Your task to perform on an android device: turn off picture-in-picture Image 0: 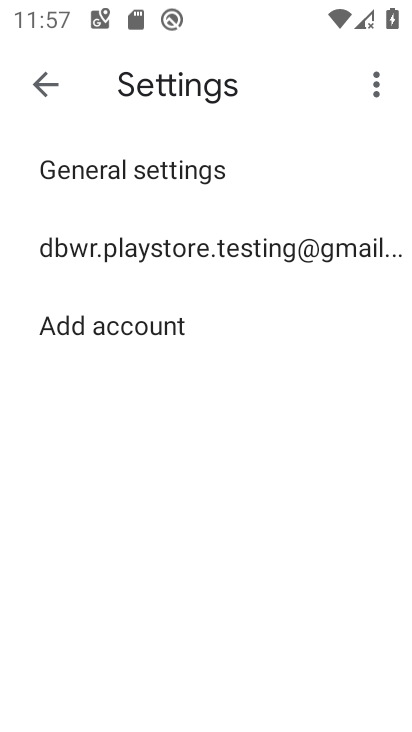
Step 0: press home button
Your task to perform on an android device: turn off picture-in-picture Image 1: 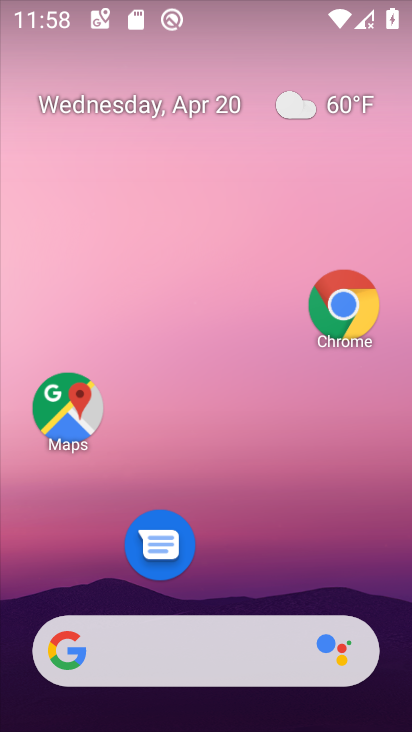
Step 1: drag from (198, 509) to (193, 58)
Your task to perform on an android device: turn off picture-in-picture Image 2: 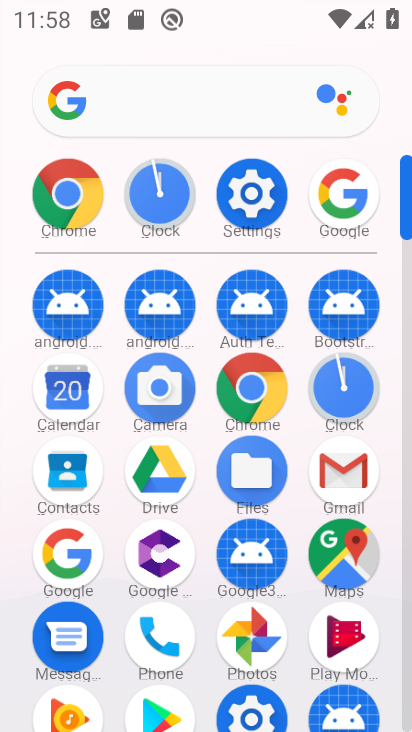
Step 2: click (242, 205)
Your task to perform on an android device: turn off picture-in-picture Image 3: 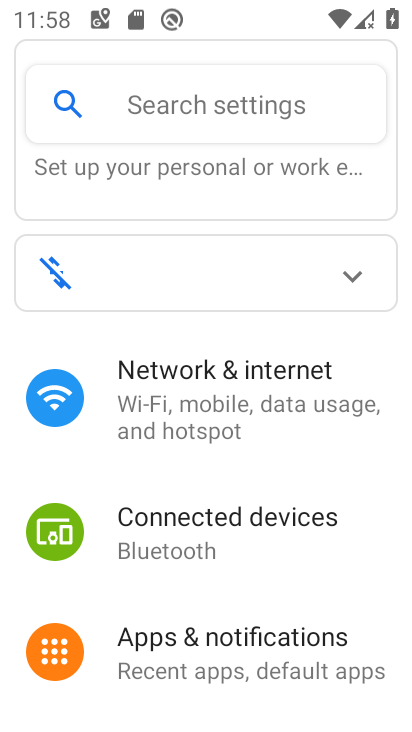
Step 3: click (267, 651)
Your task to perform on an android device: turn off picture-in-picture Image 4: 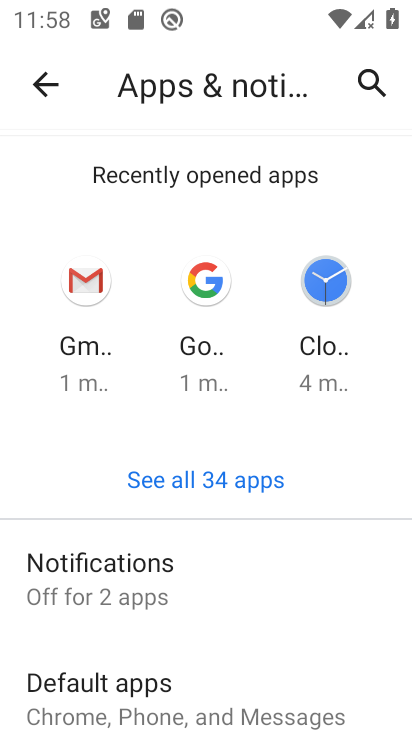
Step 4: drag from (198, 635) to (209, 97)
Your task to perform on an android device: turn off picture-in-picture Image 5: 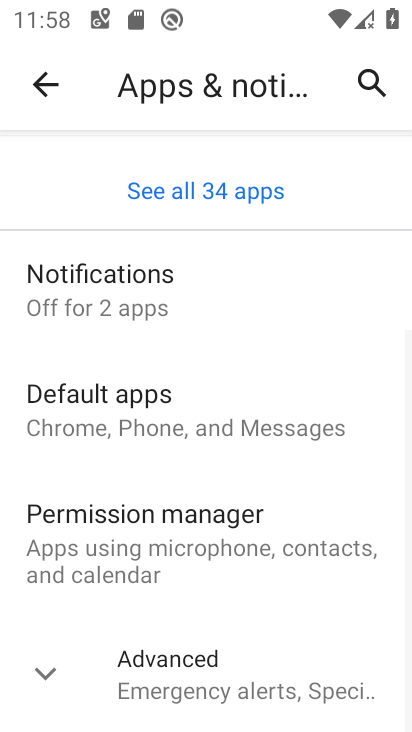
Step 5: click (188, 659)
Your task to perform on an android device: turn off picture-in-picture Image 6: 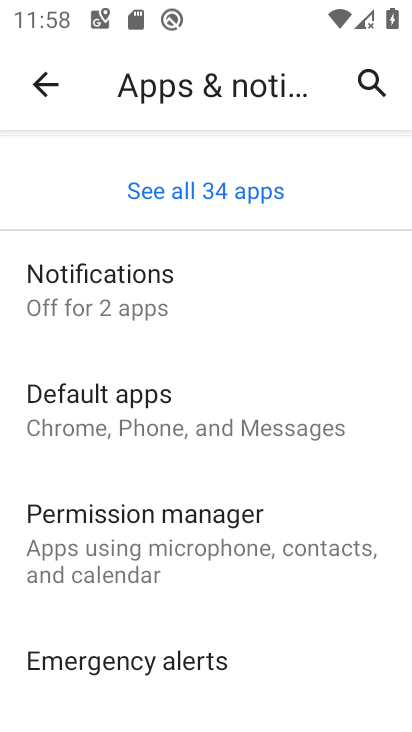
Step 6: drag from (159, 553) to (243, 53)
Your task to perform on an android device: turn off picture-in-picture Image 7: 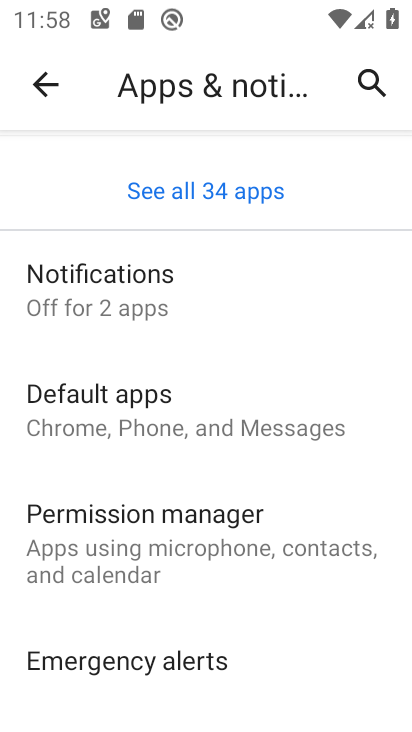
Step 7: drag from (198, 622) to (207, 157)
Your task to perform on an android device: turn off picture-in-picture Image 8: 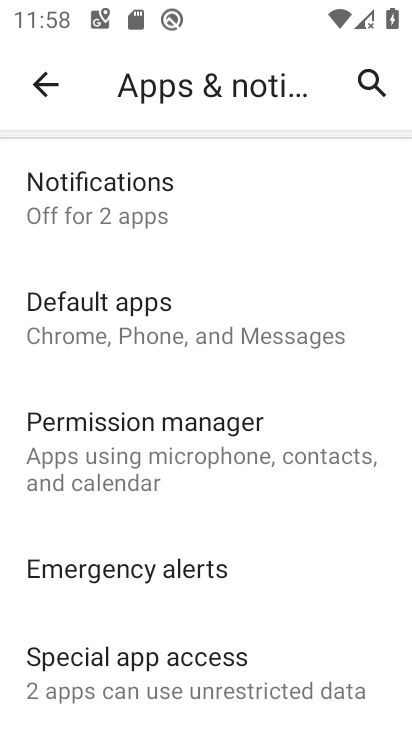
Step 8: click (240, 649)
Your task to perform on an android device: turn off picture-in-picture Image 9: 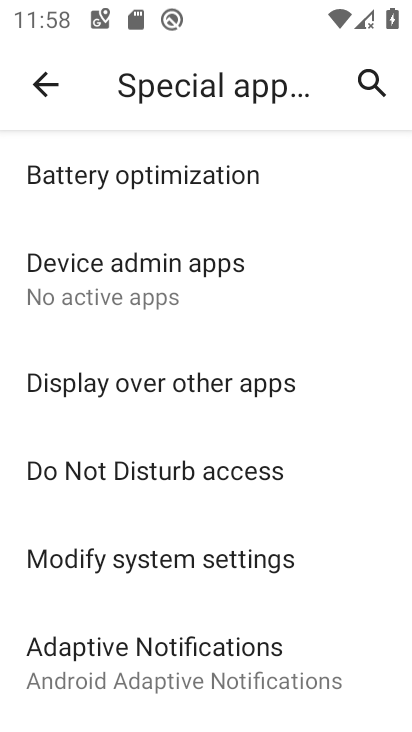
Step 9: drag from (214, 538) to (262, 170)
Your task to perform on an android device: turn off picture-in-picture Image 10: 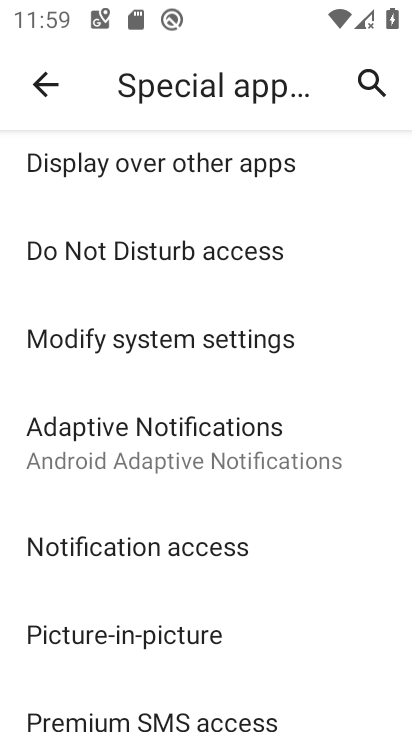
Step 10: click (214, 552)
Your task to perform on an android device: turn off picture-in-picture Image 11: 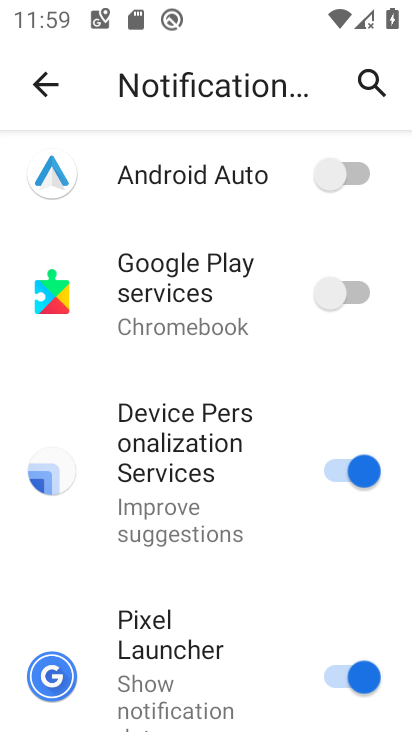
Step 11: click (47, 99)
Your task to perform on an android device: turn off picture-in-picture Image 12: 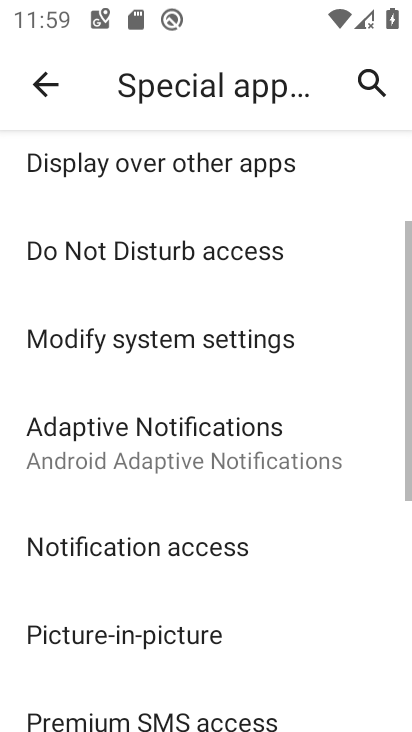
Step 12: click (196, 623)
Your task to perform on an android device: turn off picture-in-picture Image 13: 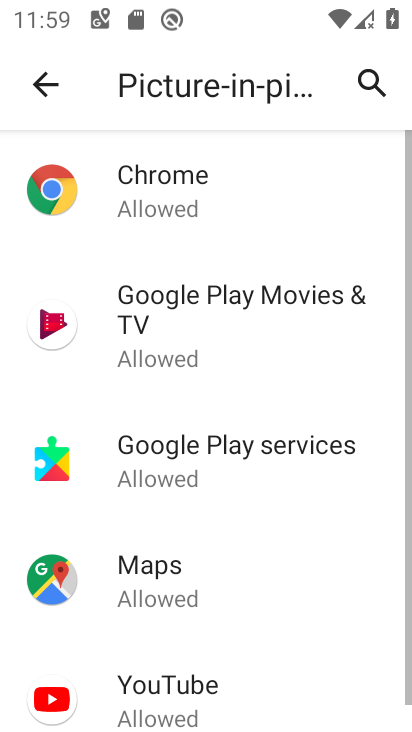
Step 13: click (281, 201)
Your task to perform on an android device: turn off picture-in-picture Image 14: 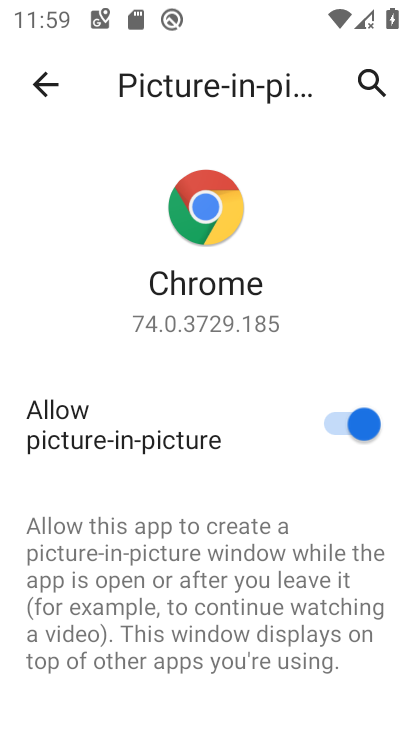
Step 14: click (327, 424)
Your task to perform on an android device: turn off picture-in-picture Image 15: 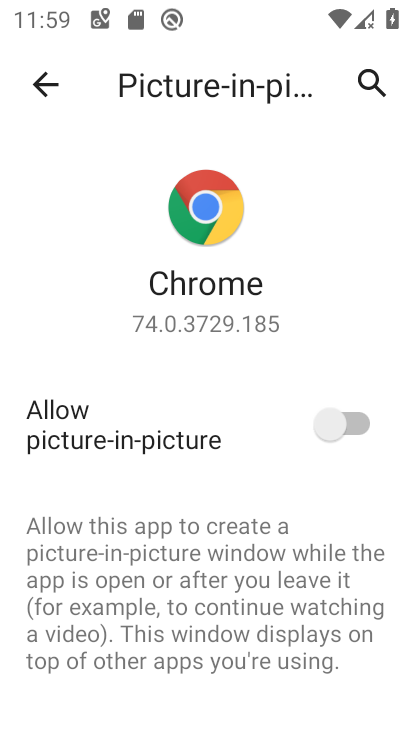
Step 15: task complete